Your task to perform on an android device: Go to privacy settings Image 0: 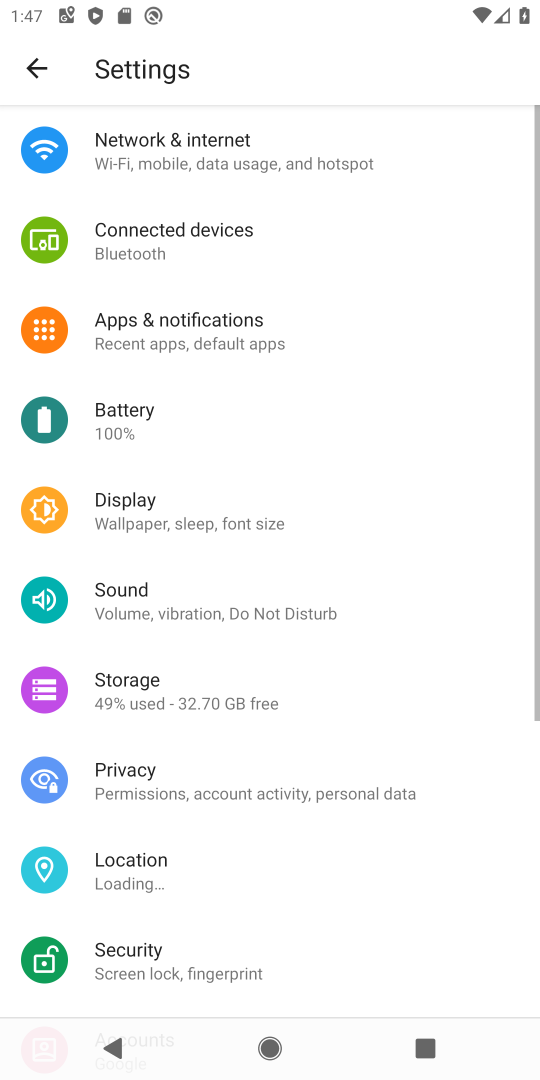
Step 0: press home button
Your task to perform on an android device: Go to privacy settings Image 1: 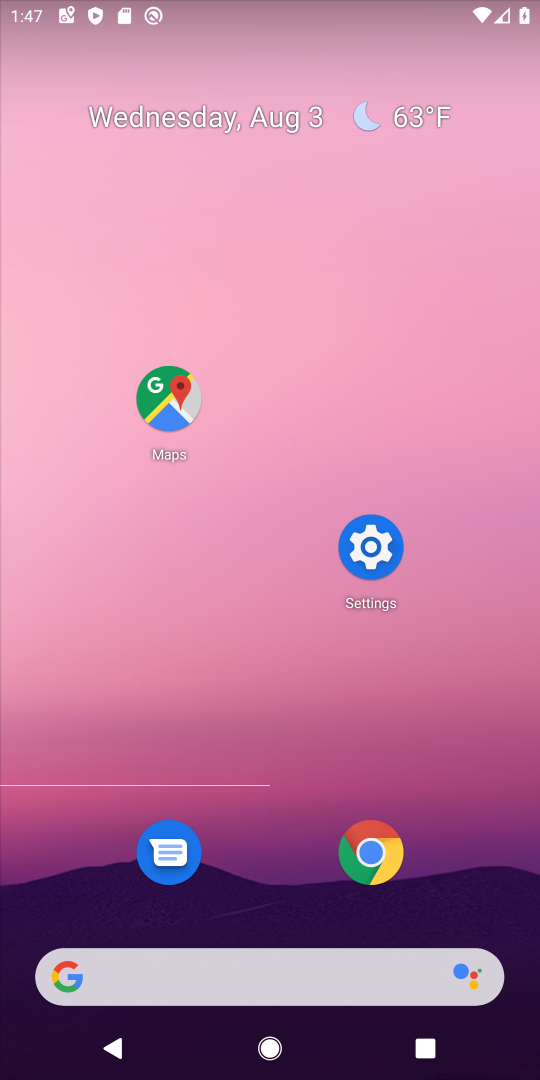
Step 1: click (366, 545)
Your task to perform on an android device: Go to privacy settings Image 2: 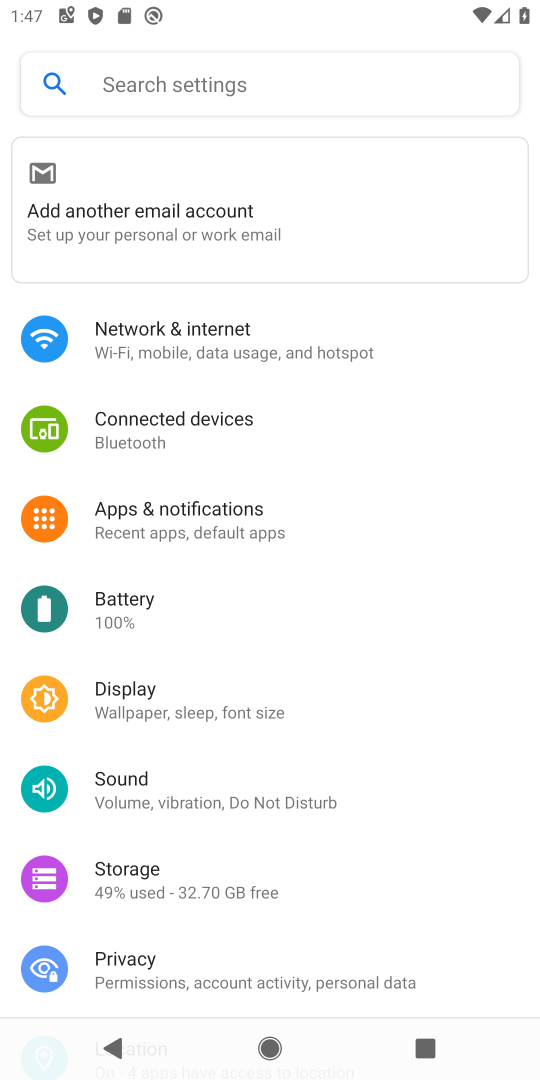
Step 2: click (151, 960)
Your task to perform on an android device: Go to privacy settings Image 3: 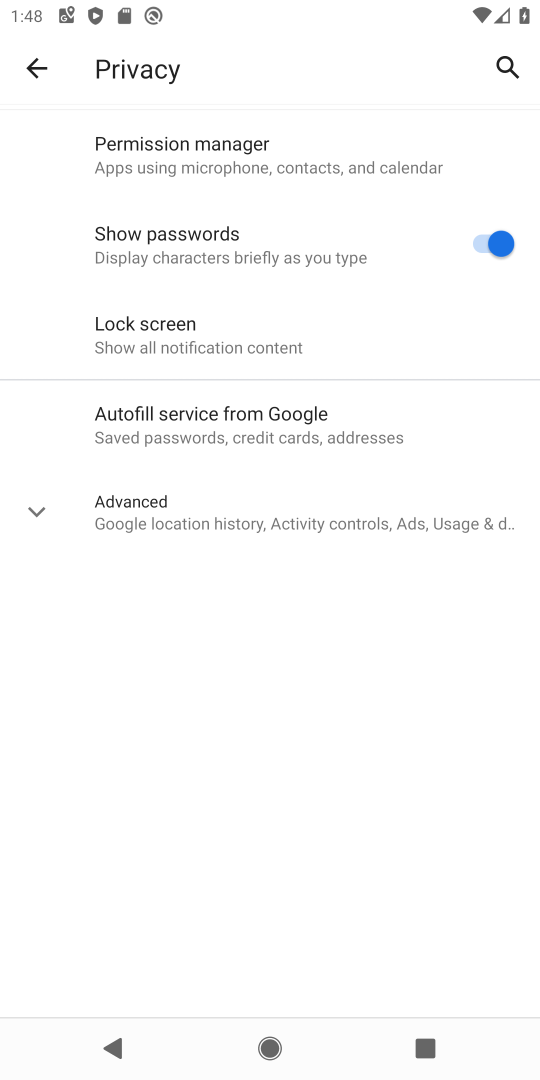
Step 3: task complete